Your task to perform on an android device: toggle notifications settings in the gmail app Image 0: 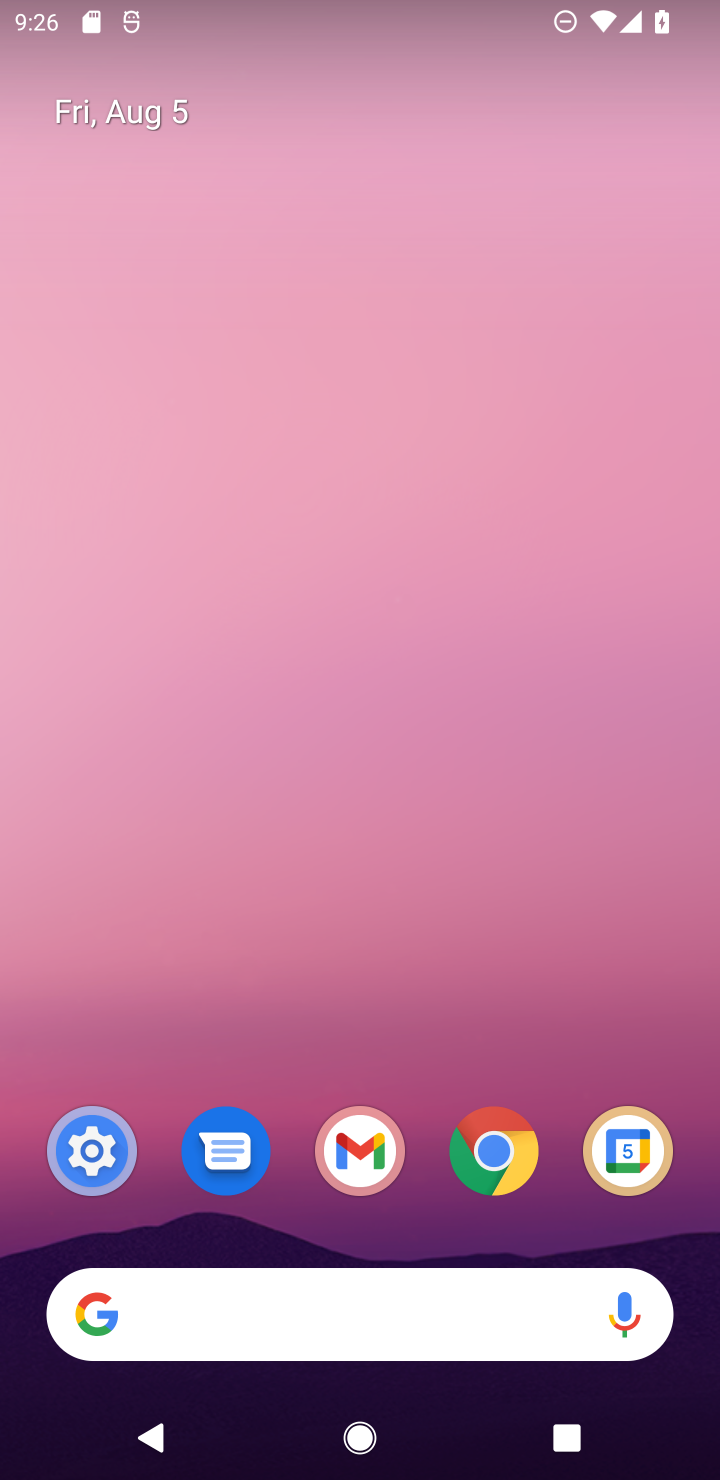
Step 0: press home button
Your task to perform on an android device: toggle notifications settings in the gmail app Image 1: 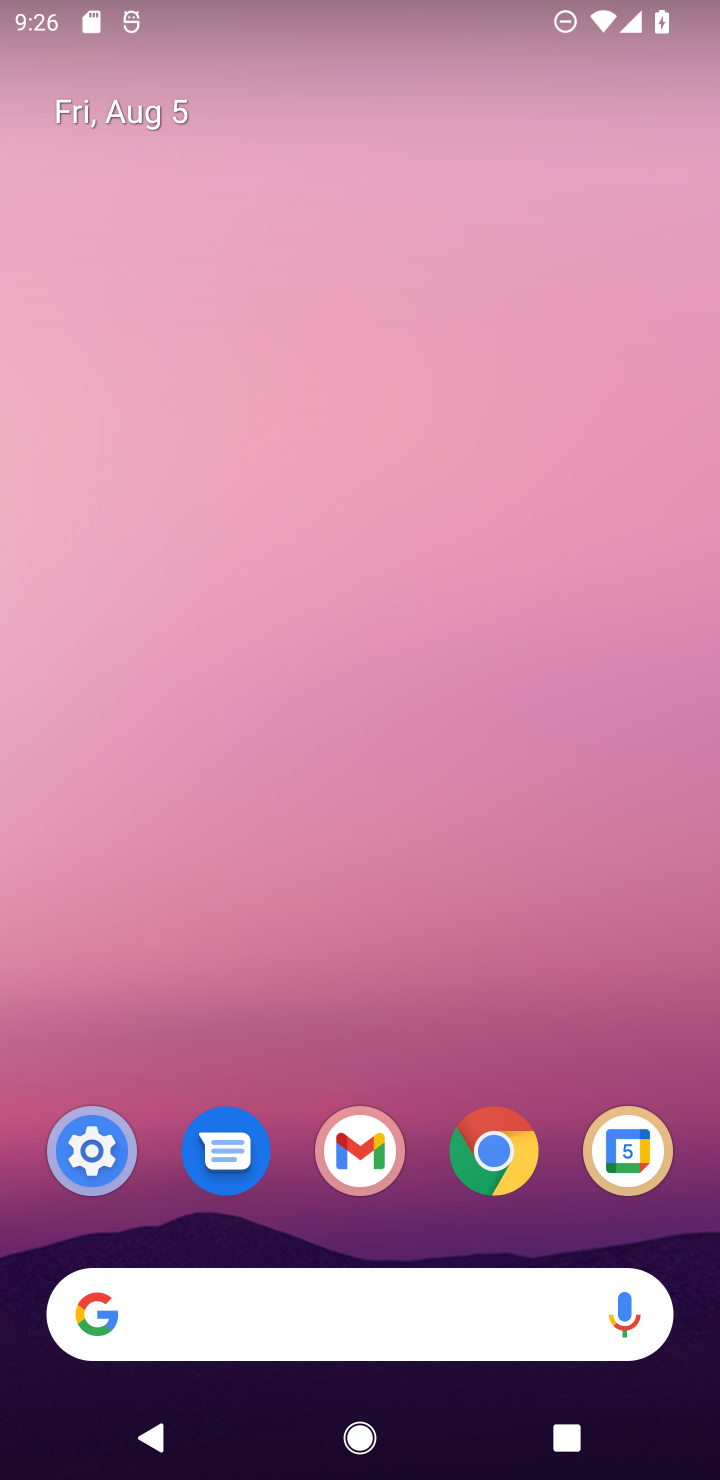
Step 1: drag from (348, 1119) to (421, 524)
Your task to perform on an android device: toggle notifications settings in the gmail app Image 2: 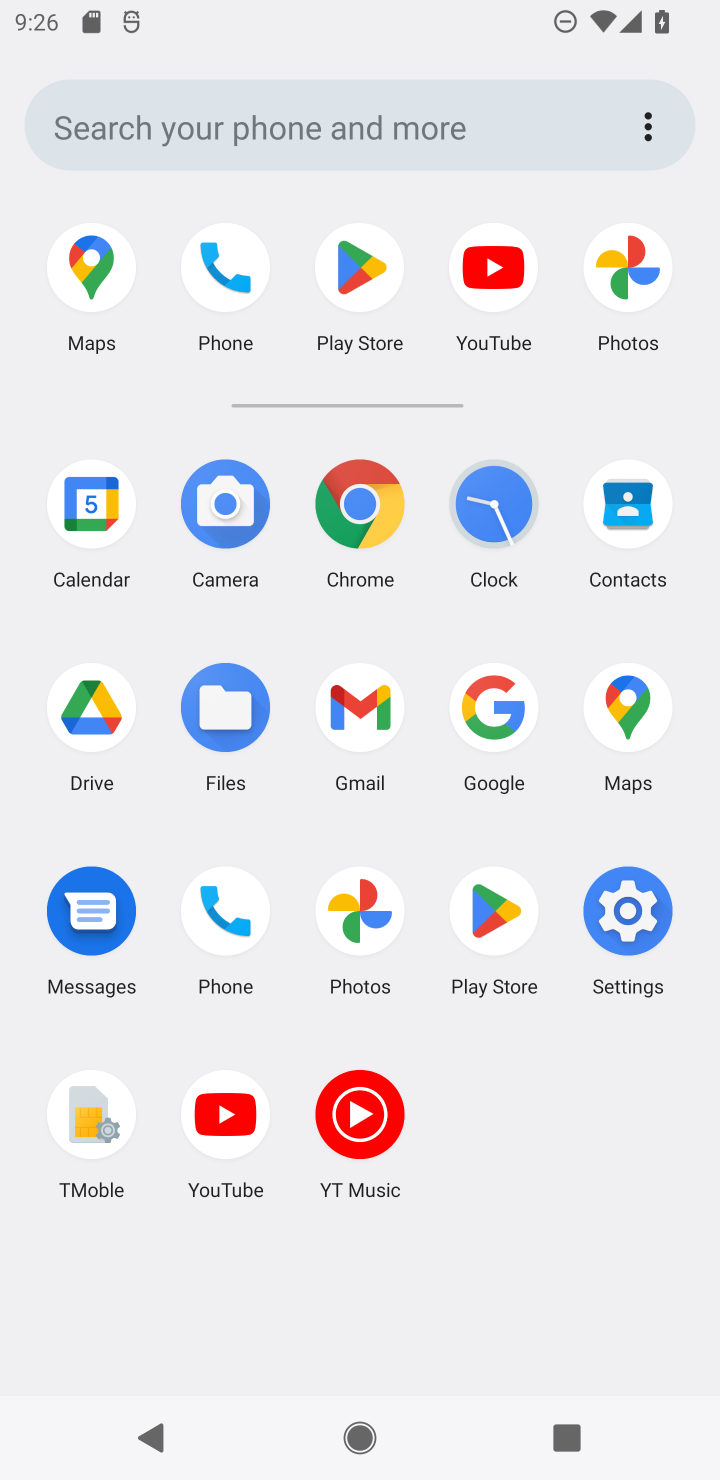
Step 2: click (345, 726)
Your task to perform on an android device: toggle notifications settings in the gmail app Image 3: 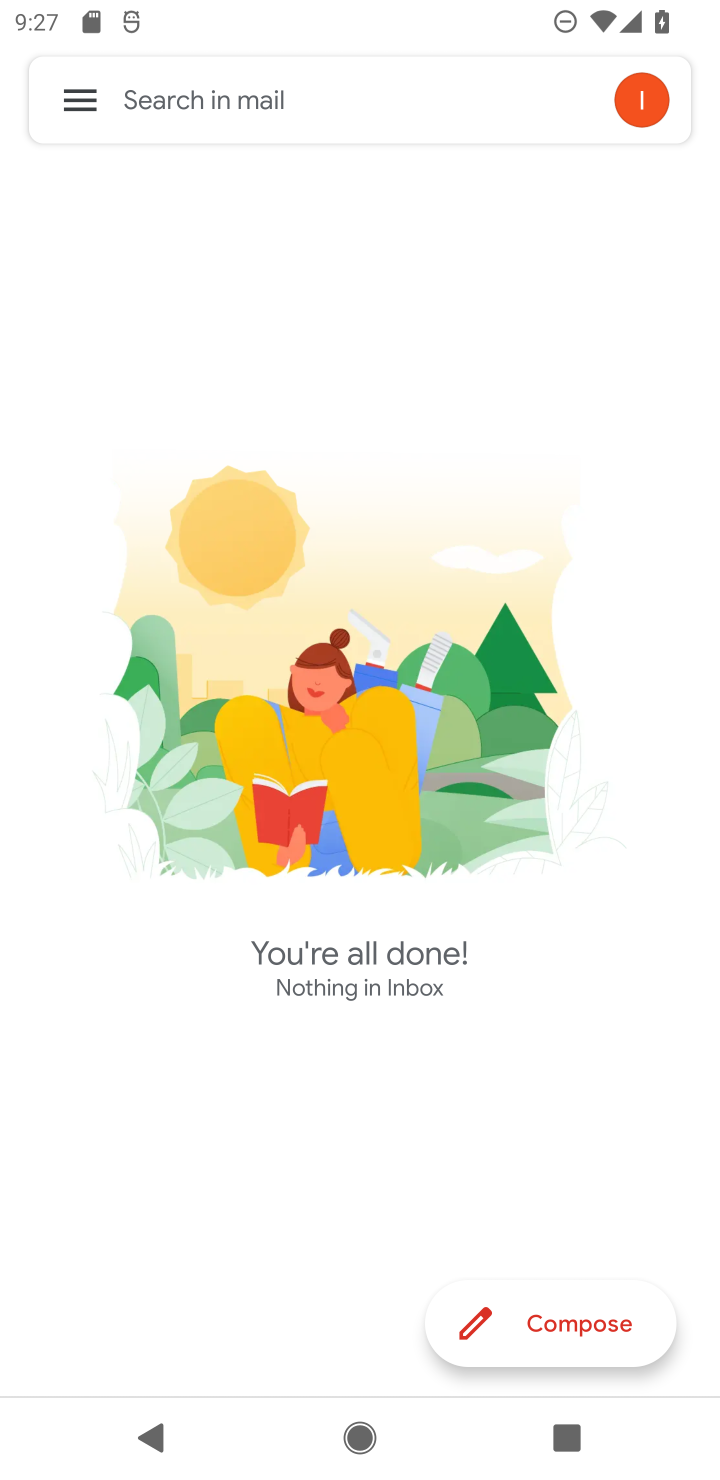
Step 3: click (80, 87)
Your task to perform on an android device: toggle notifications settings in the gmail app Image 4: 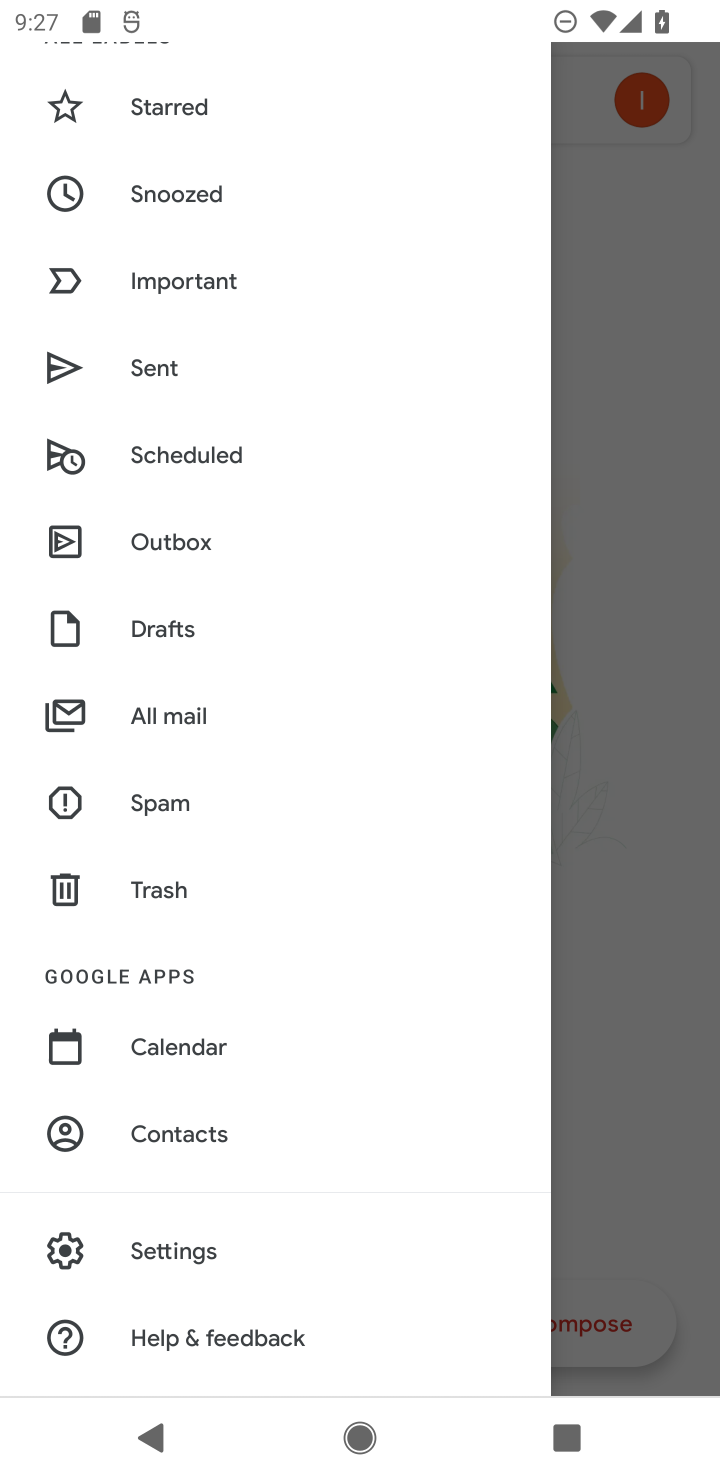
Step 4: click (165, 1257)
Your task to perform on an android device: toggle notifications settings in the gmail app Image 5: 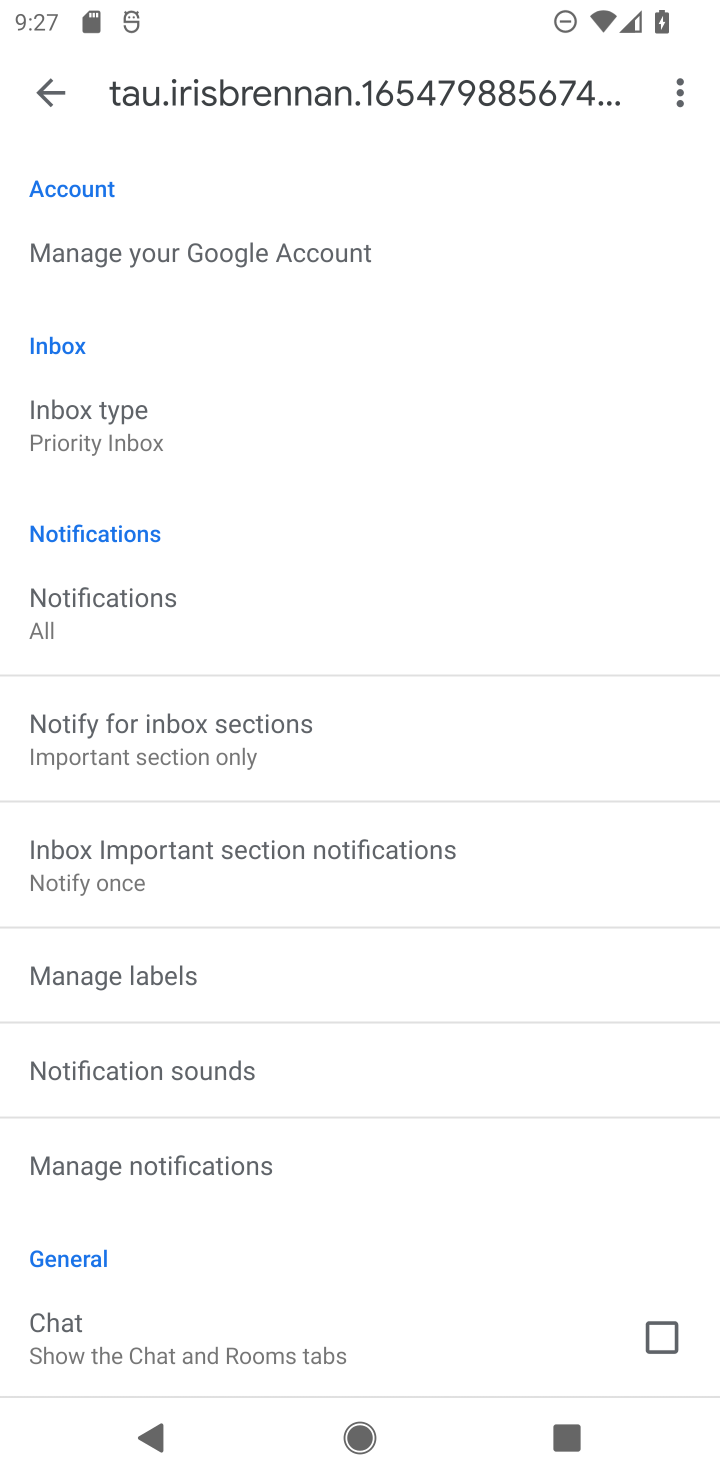
Step 5: drag from (252, 1107) to (312, 656)
Your task to perform on an android device: toggle notifications settings in the gmail app Image 6: 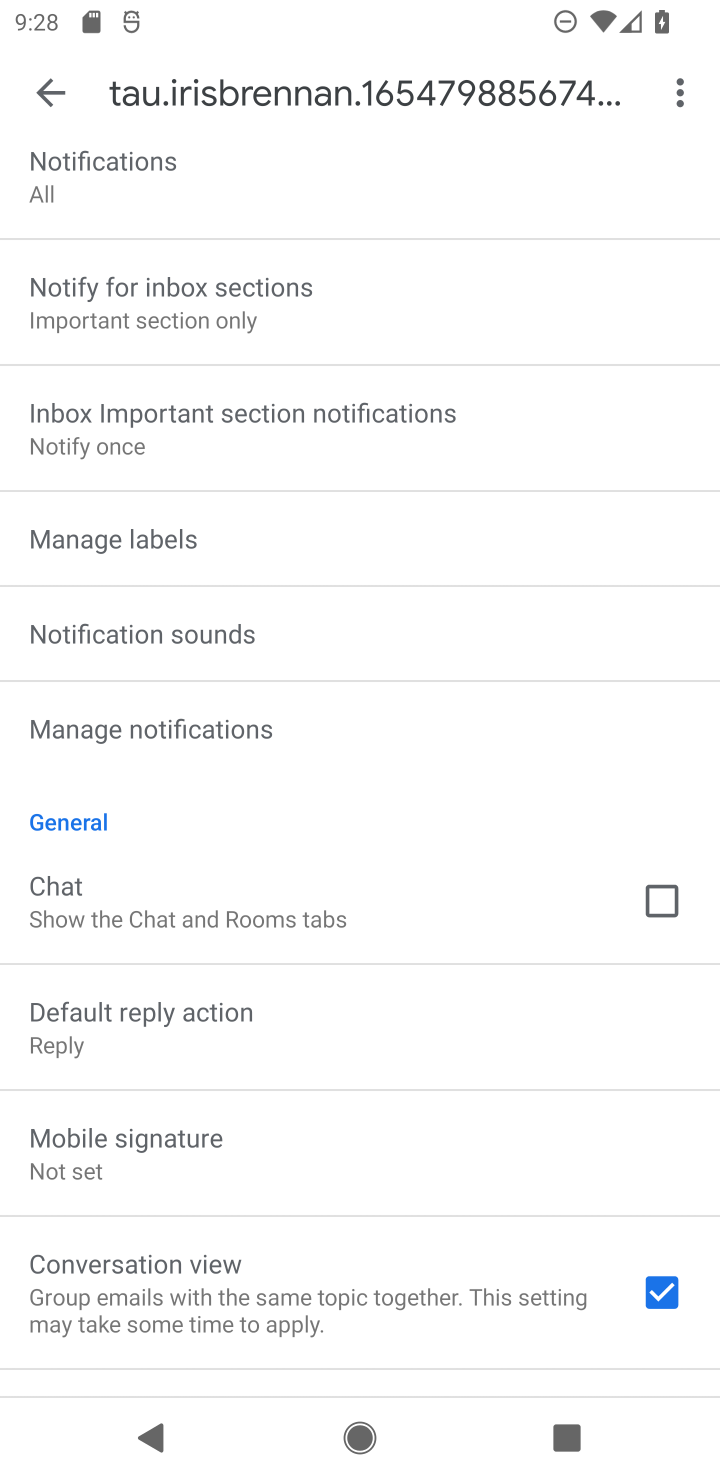
Step 6: drag from (226, 443) to (201, 1363)
Your task to perform on an android device: toggle notifications settings in the gmail app Image 7: 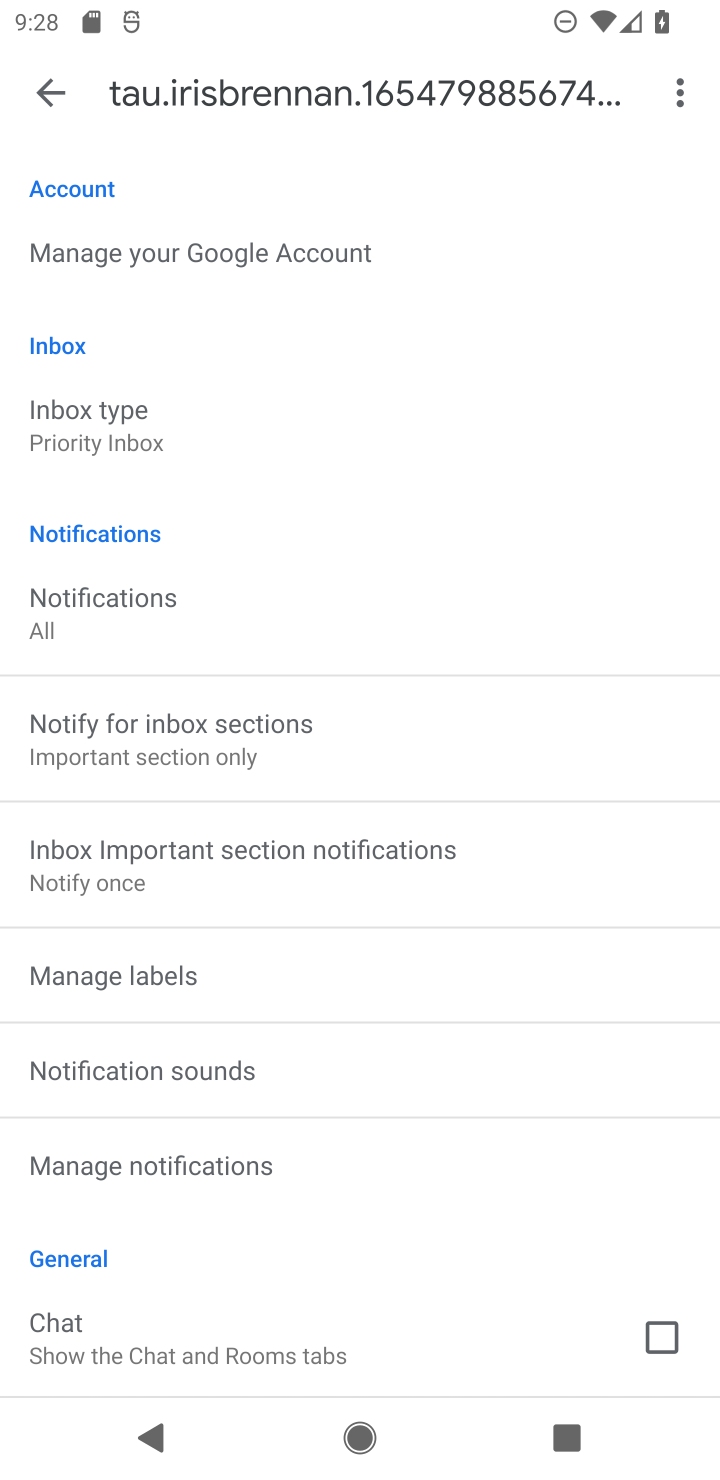
Step 7: drag from (356, 1090) to (357, 174)
Your task to perform on an android device: toggle notifications settings in the gmail app Image 8: 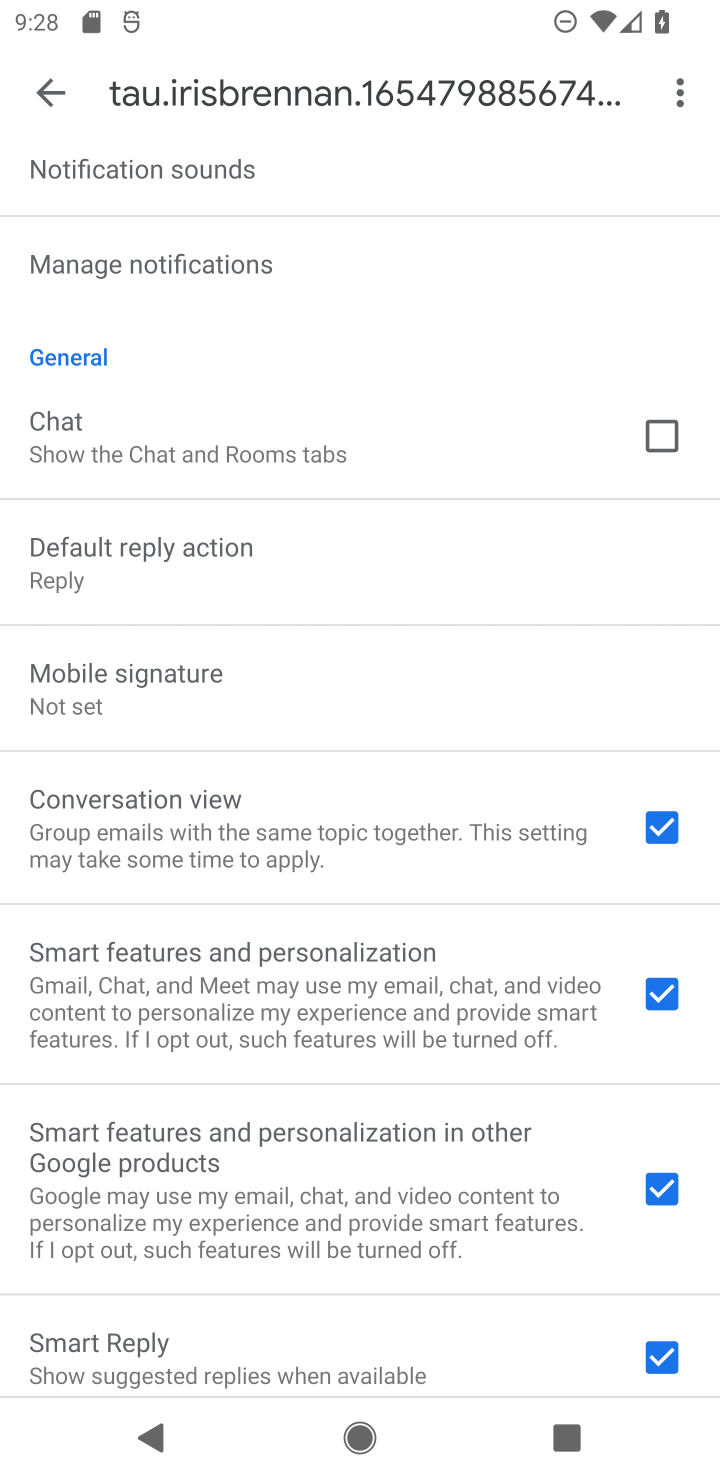
Step 8: drag from (287, 525) to (280, 780)
Your task to perform on an android device: toggle notifications settings in the gmail app Image 9: 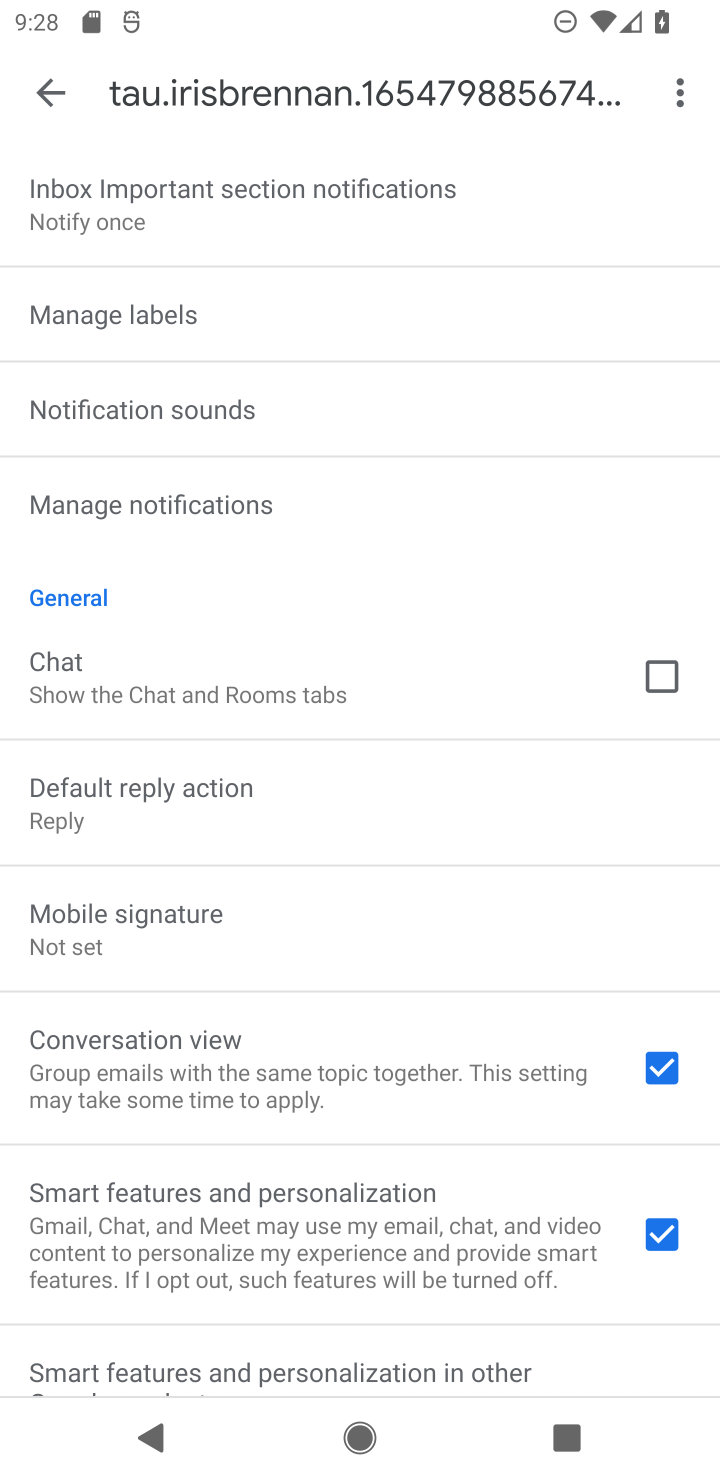
Step 9: click (110, 503)
Your task to perform on an android device: toggle notifications settings in the gmail app Image 10: 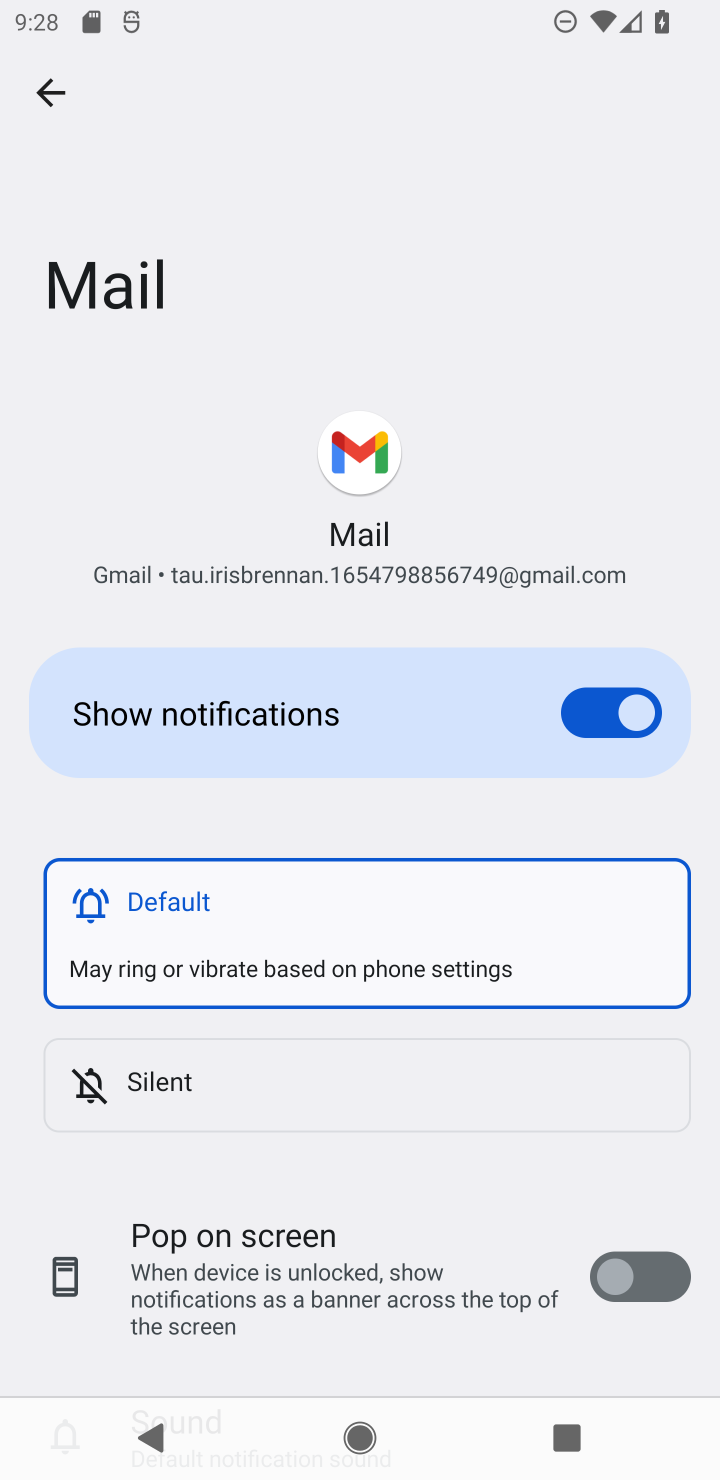
Step 10: click (559, 724)
Your task to perform on an android device: toggle notifications settings in the gmail app Image 11: 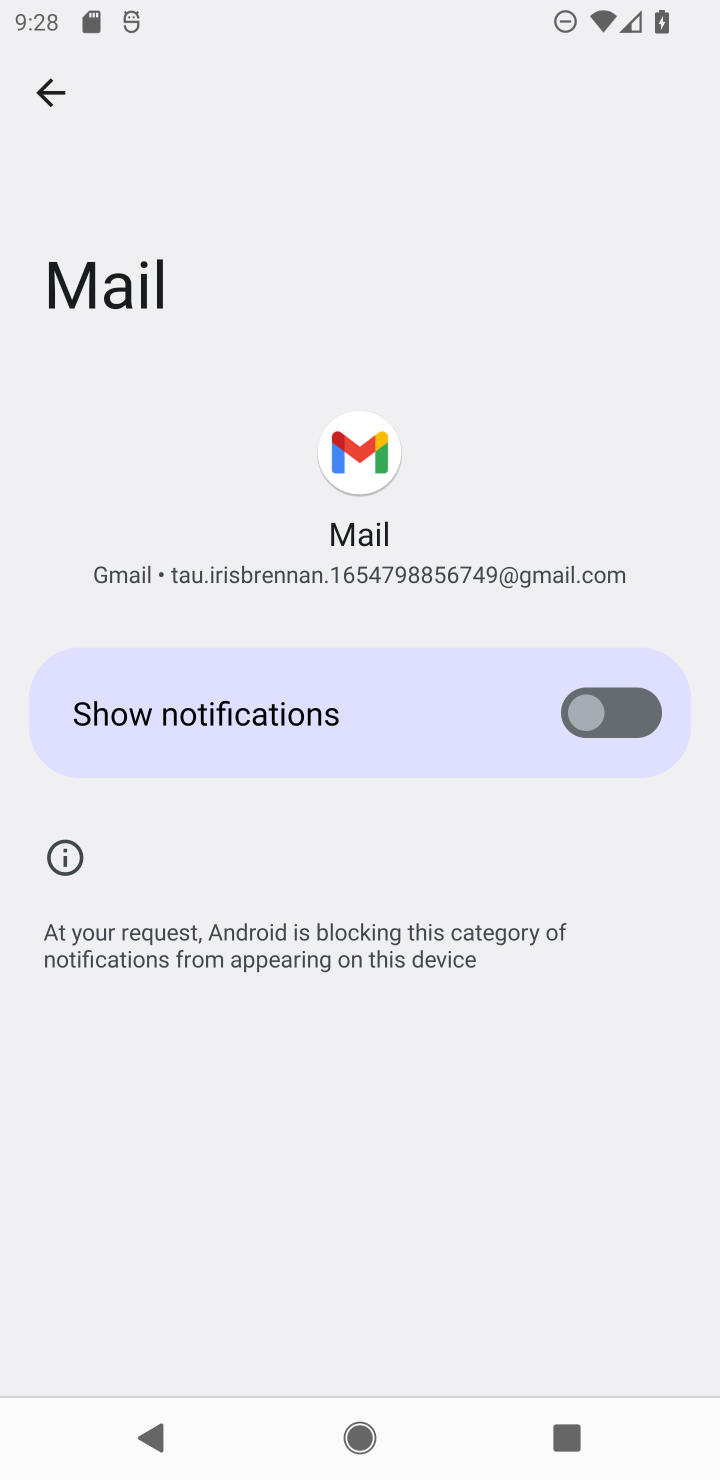
Step 11: task complete